Your task to perform on an android device: open device folders in google photos Image 0: 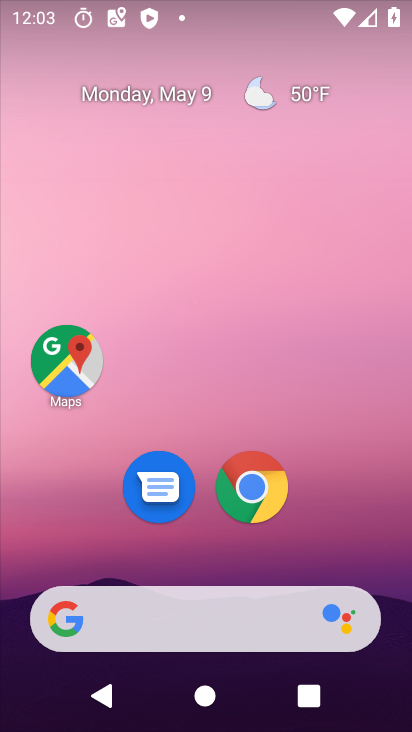
Step 0: drag from (342, 558) to (283, 97)
Your task to perform on an android device: open device folders in google photos Image 1: 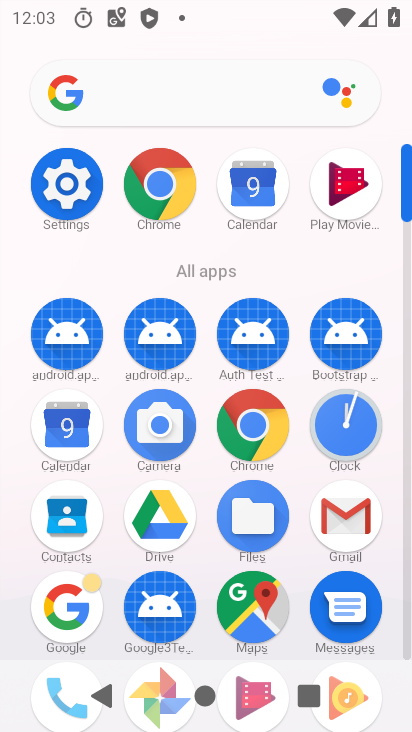
Step 1: drag from (196, 638) to (192, 350)
Your task to perform on an android device: open device folders in google photos Image 2: 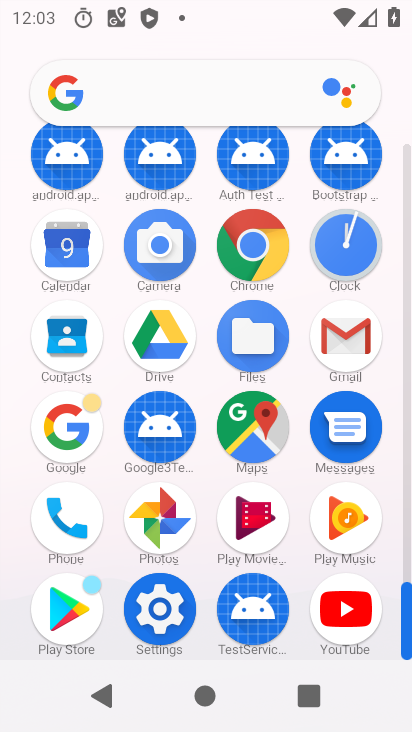
Step 2: click (165, 510)
Your task to perform on an android device: open device folders in google photos Image 3: 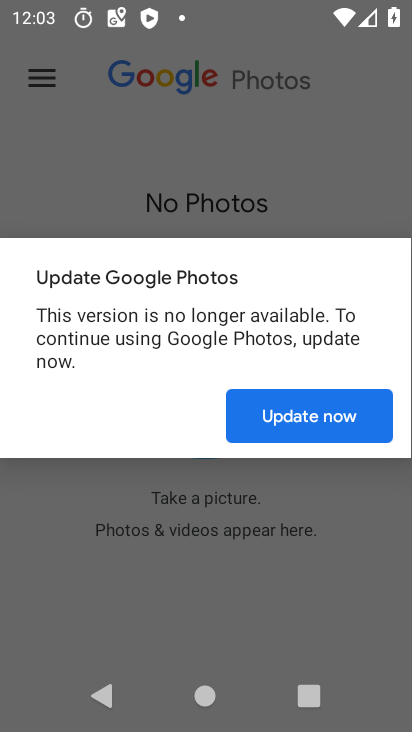
Step 3: click (320, 416)
Your task to perform on an android device: open device folders in google photos Image 4: 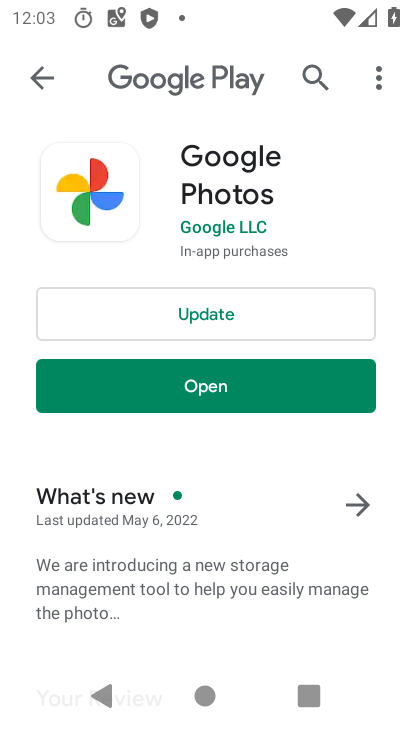
Step 4: click (167, 320)
Your task to perform on an android device: open device folders in google photos Image 5: 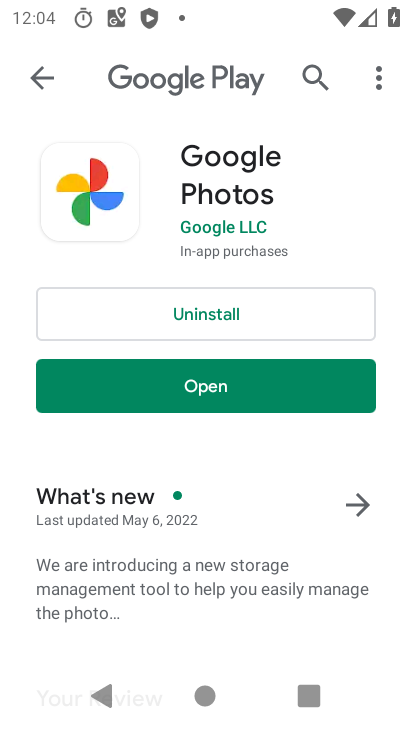
Step 5: click (272, 391)
Your task to perform on an android device: open device folders in google photos Image 6: 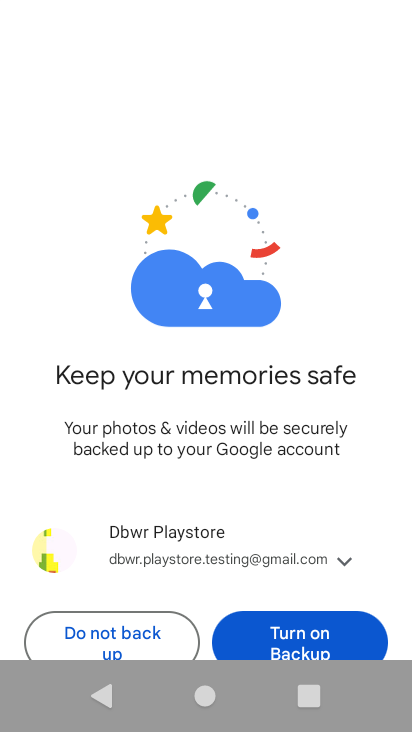
Step 6: click (310, 630)
Your task to perform on an android device: open device folders in google photos Image 7: 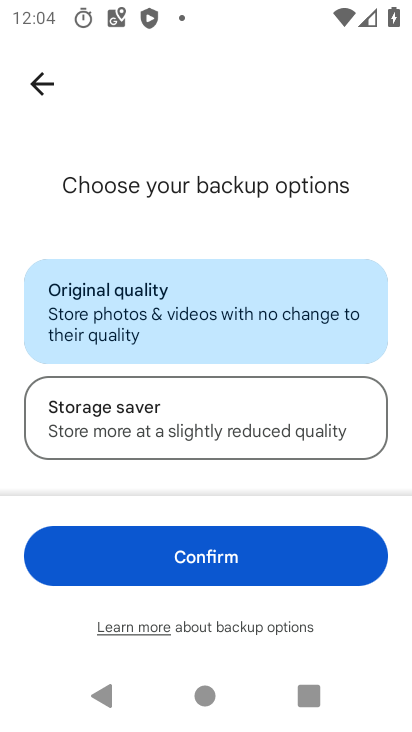
Step 7: click (270, 570)
Your task to perform on an android device: open device folders in google photos Image 8: 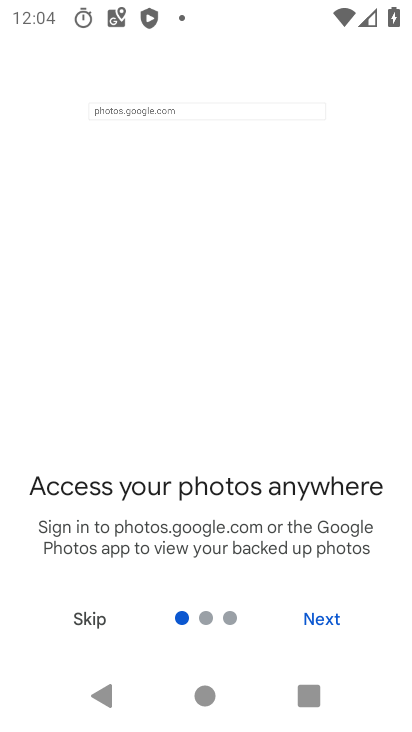
Step 8: click (315, 616)
Your task to perform on an android device: open device folders in google photos Image 9: 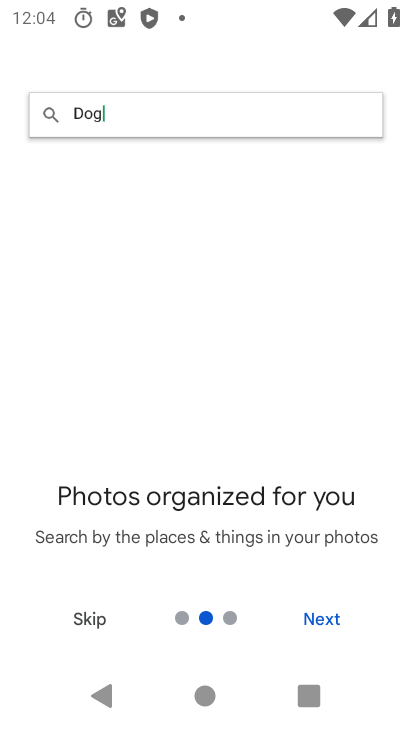
Step 9: click (91, 625)
Your task to perform on an android device: open device folders in google photos Image 10: 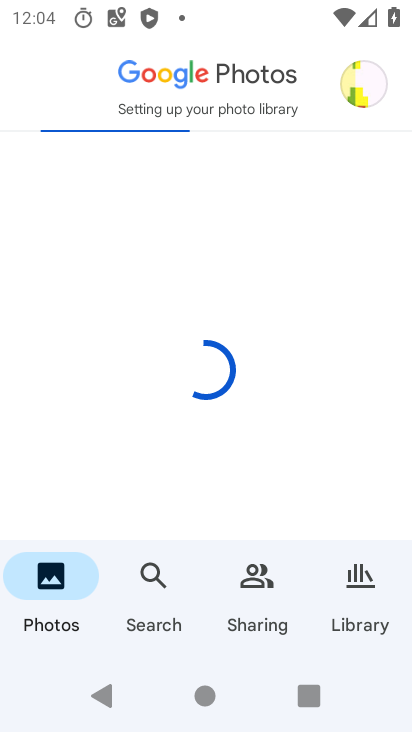
Step 10: click (156, 579)
Your task to perform on an android device: open device folders in google photos Image 11: 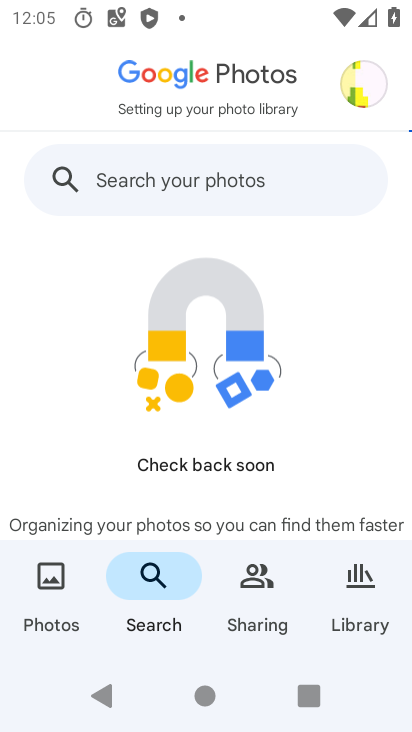
Step 11: click (217, 179)
Your task to perform on an android device: open device folders in google photos Image 12: 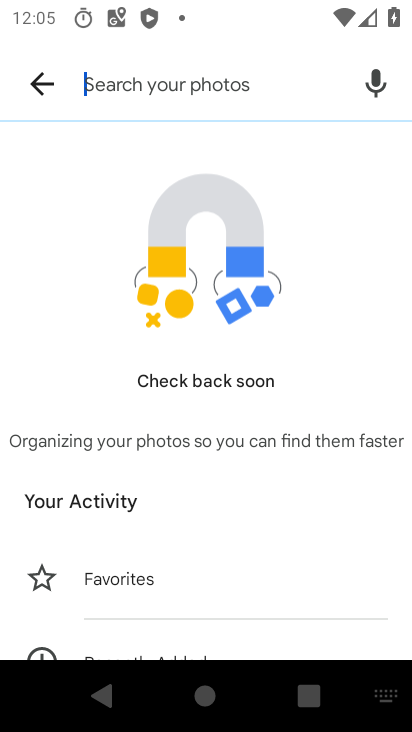
Step 12: type "device folder"
Your task to perform on an android device: open device folders in google photos Image 13: 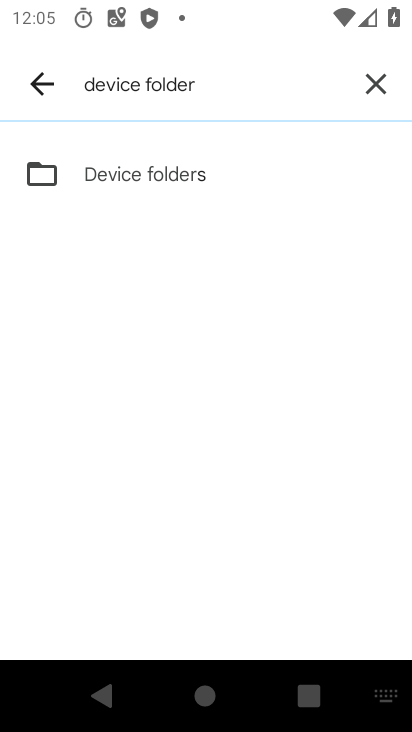
Step 13: click (205, 166)
Your task to perform on an android device: open device folders in google photos Image 14: 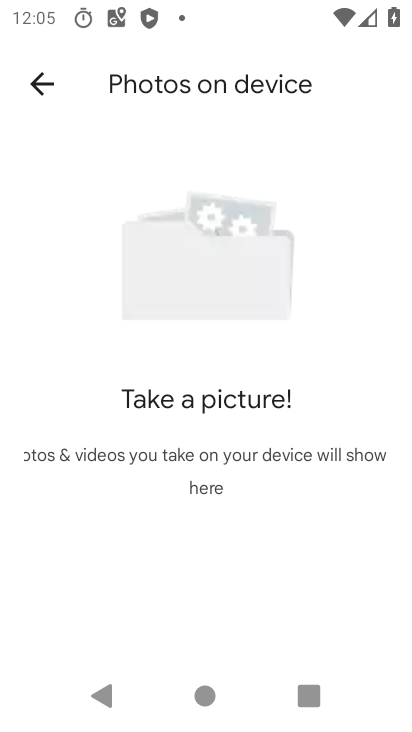
Step 14: task complete